Your task to perform on an android device: Is it going to rain tomorrow? Image 0: 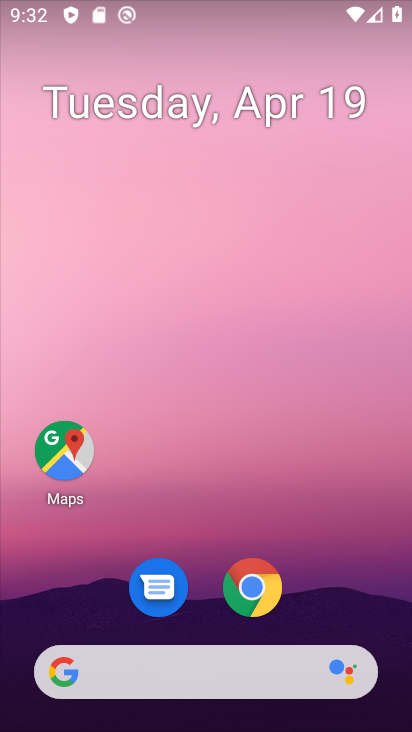
Step 0: drag from (399, 210) to (43, 2)
Your task to perform on an android device: Is it going to rain tomorrow? Image 1: 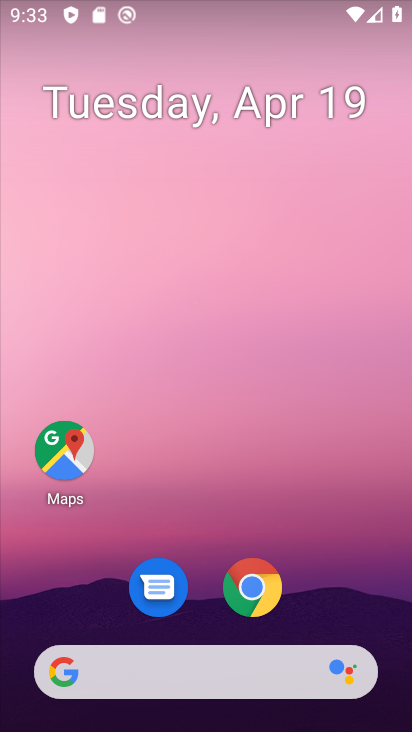
Step 1: drag from (339, 596) to (324, 22)
Your task to perform on an android device: Is it going to rain tomorrow? Image 2: 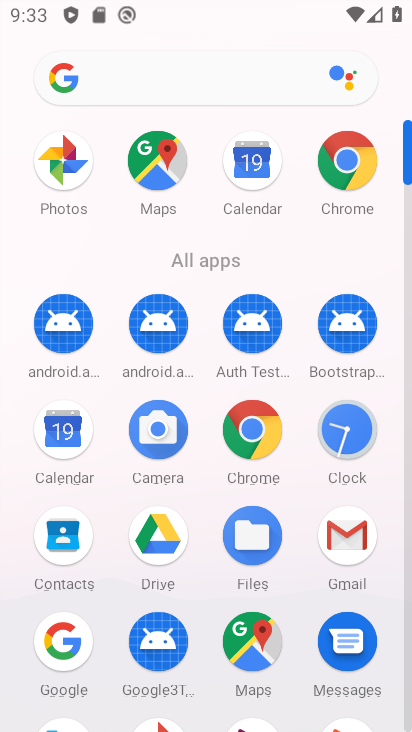
Step 2: press back button
Your task to perform on an android device: Is it going to rain tomorrow? Image 3: 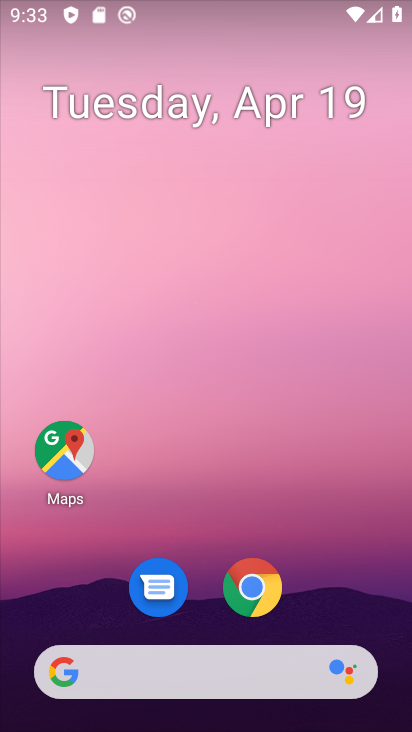
Step 3: drag from (32, 248) to (389, 133)
Your task to perform on an android device: Is it going to rain tomorrow? Image 4: 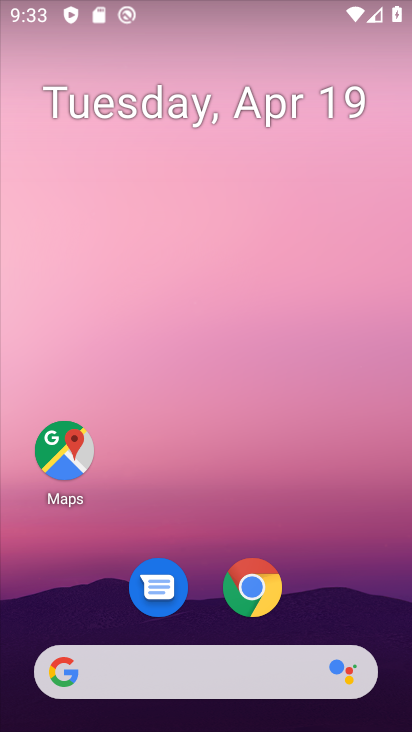
Step 4: drag from (22, 136) to (408, 182)
Your task to perform on an android device: Is it going to rain tomorrow? Image 5: 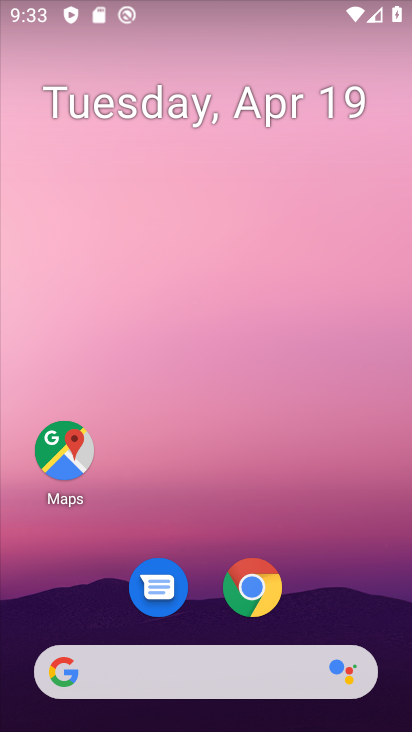
Step 5: drag from (8, 200) to (385, 197)
Your task to perform on an android device: Is it going to rain tomorrow? Image 6: 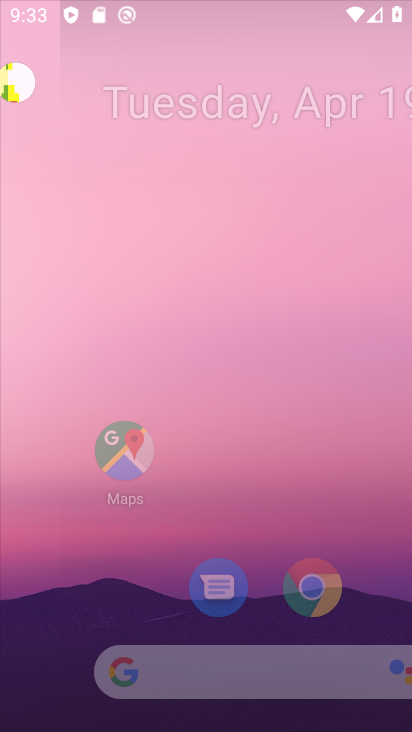
Step 6: drag from (47, 204) to (375, 240)
Your task to perform on an android device: Is it going to rain tomorrow? Image 7: 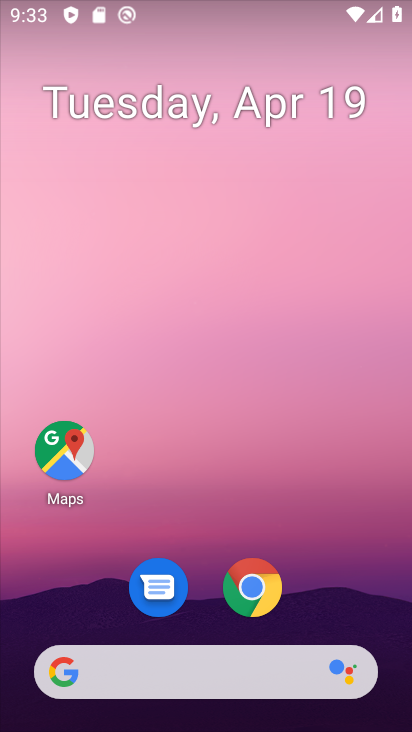
Step 7: drag from (3, 168) to (400, 186)
Your task to perform on an android device: Is it going to rain tomorrow? Image 8: 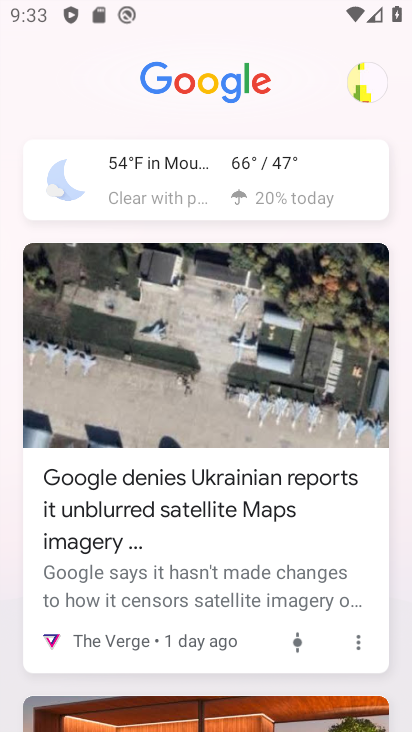
Step 8: click (191, 195)
Your task to perform on an android device: Is it going to rain tomorrow? Image 9: 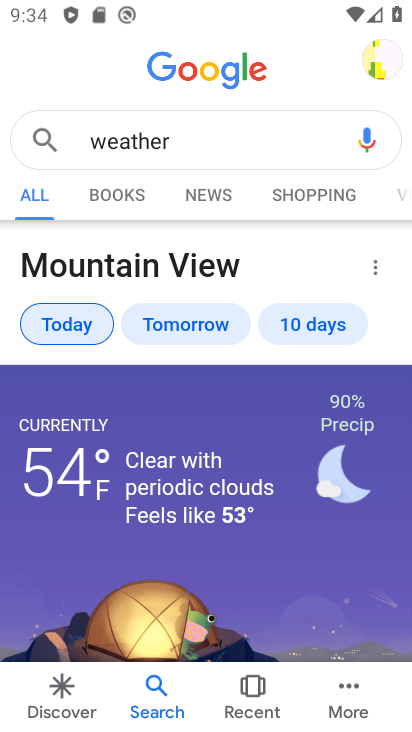
Step 9: click (191, 328)
Your task to perform on an android device: Is it going to rain tomorrow? Image 10: 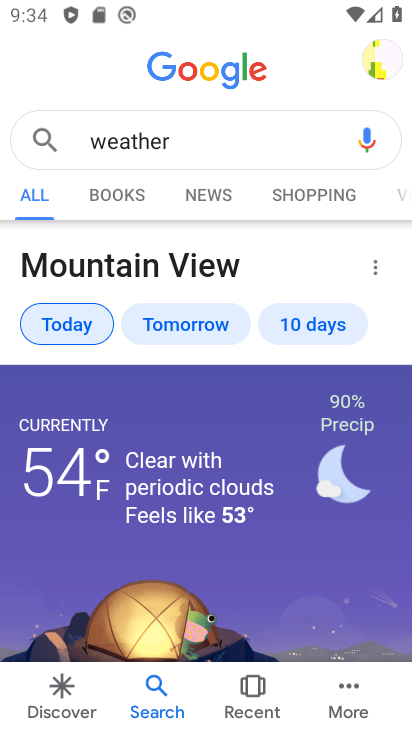
Step 10: click (209, 328)
Your task to perform on an android device: Is it going to rain tomorrow? Image 11: 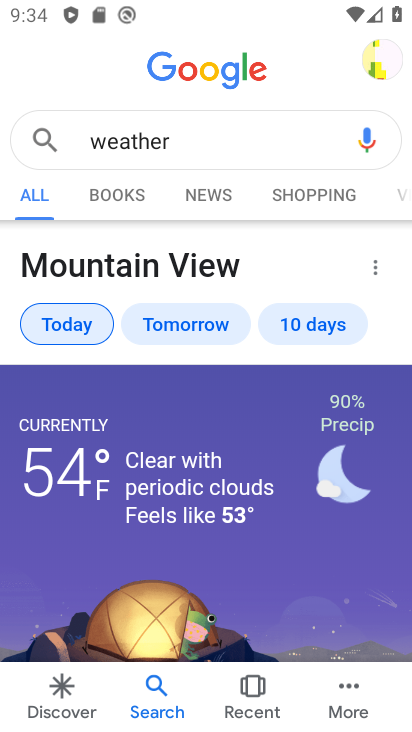
Step 11: click (209, 328)
Your task to perform on an android device: Is it going to rain tomorrow? Image 12: 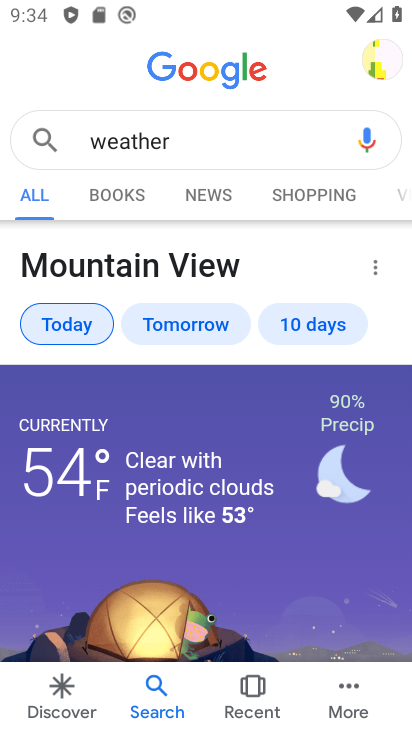
Step 12: click (179, 318)
Your task to perform on an android device: Is it going to rain tomorrow? Image 13: 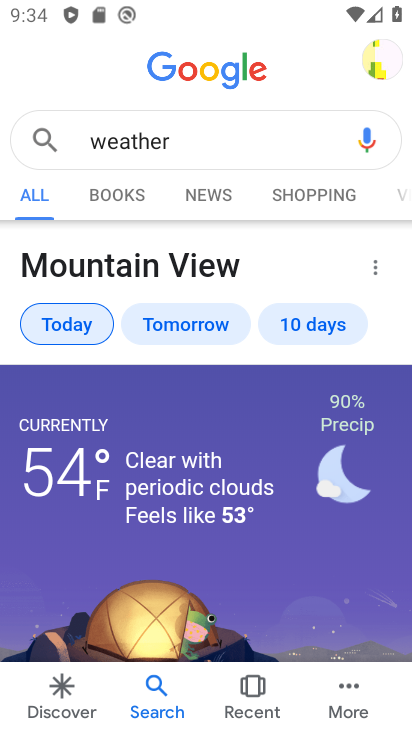
Step 13: click (177, 320)
Your task to perform on an android device: Is it going to rain tomorrow? Image 14: 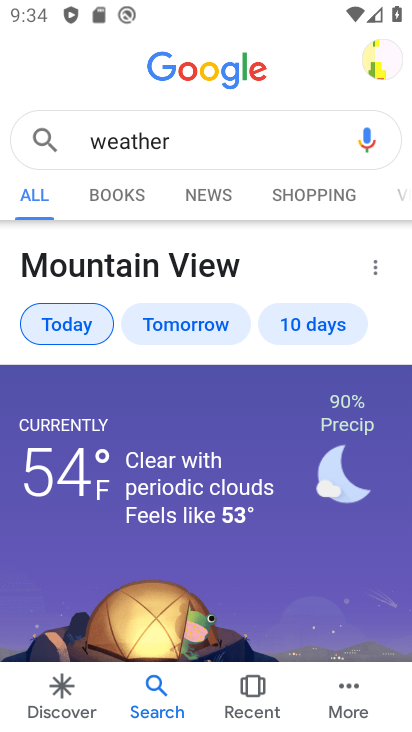
Step 14: click (178, 320)
Your task to perform on an android device: Is it going to rain tomorrow? Image 15: 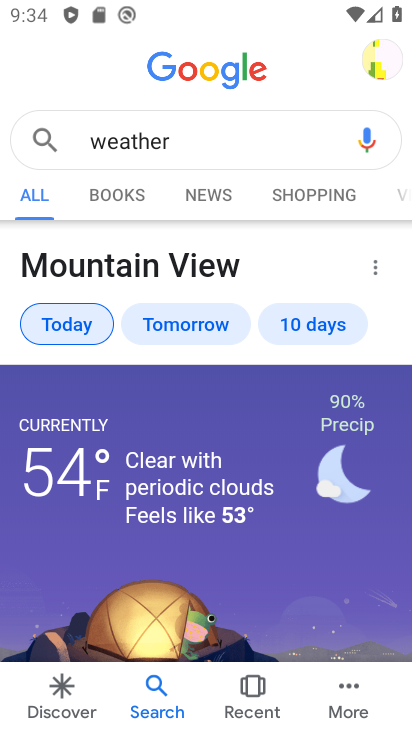
Step 15: click (178, 318)
Your task to perform on an android device: Is it going to rain tomorrow? Image 16: 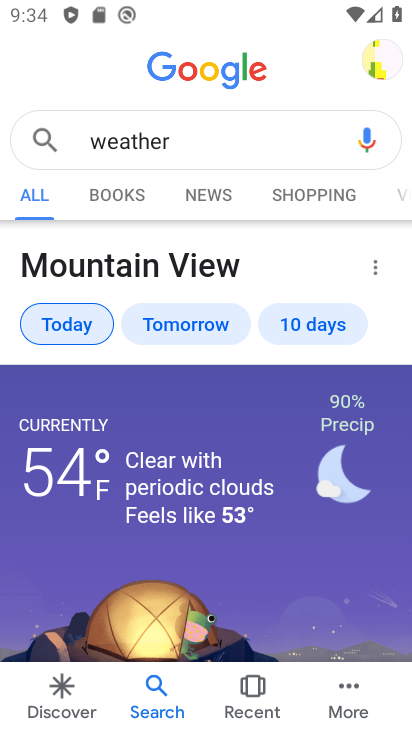
Step 16: task complete